Your task to perform on an android device: See recent photos Image 0: 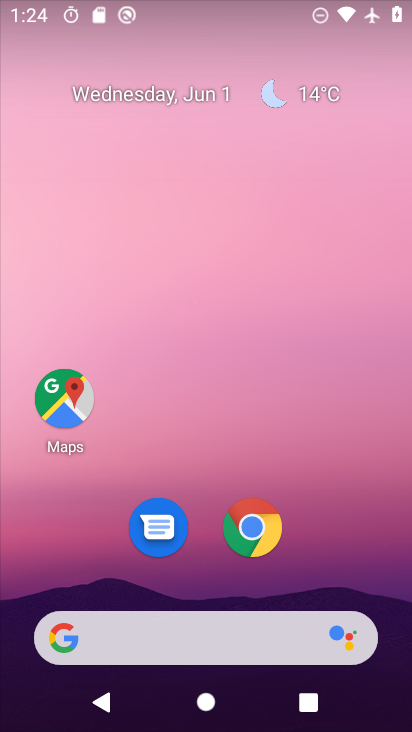
Step 0: drag from (143, 573) to (276, 13)
Your task to perform on an android device: See recent photos Image 1: 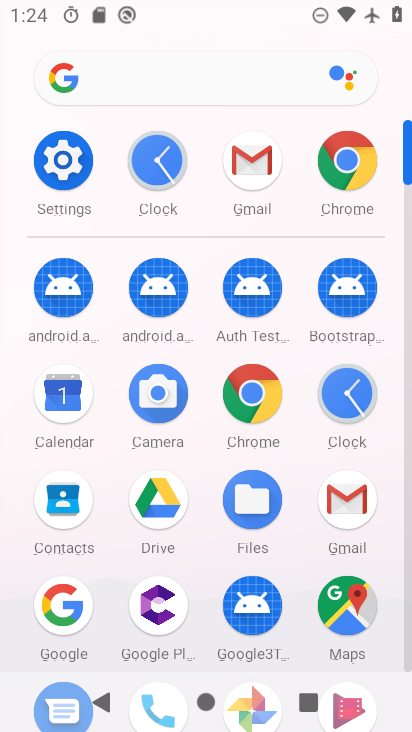
Step 1: drag from (247, 483) to (280, 163)
Your task to perform on an android device: See recent photos Image 2: 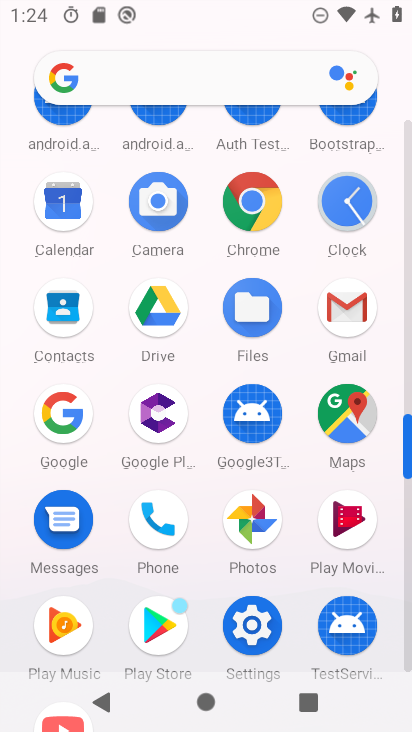
Step 2: click (264, 515)
Your task to perform on an android device: See recent photos Image 3: 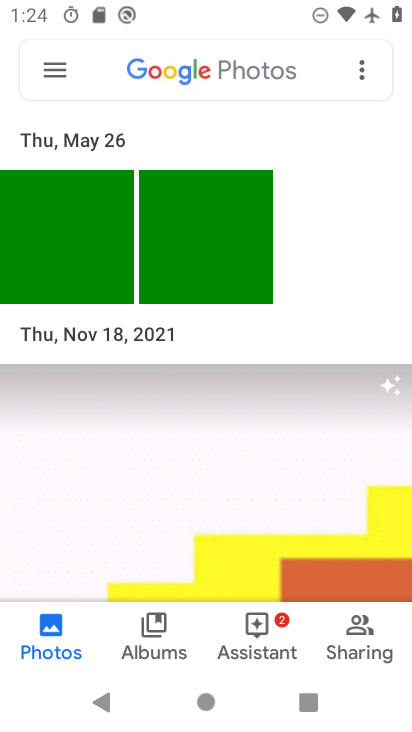
Step 3: task complete